Your task to perform on an android device: see creations saved in the google photos Image 0: 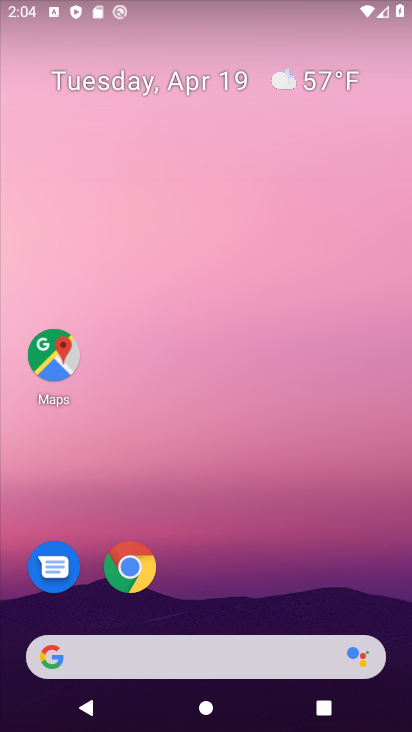
Step 0: drag from (372, 612) to (340, 15)
Your task to perform on an android device: see creations saved in the google photos Image 1: 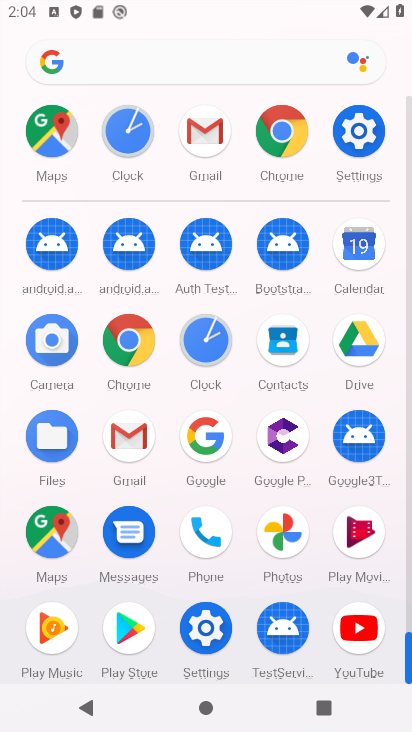
Step 1: click (282, 530)
Your task to perform on an android device: see creations saved in the google photos Image 2: 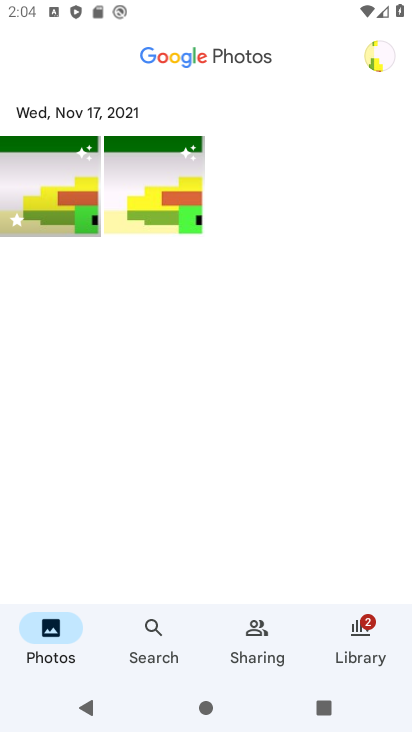
Step 2: task complete